Your task to perform on an android device: Search for Italian restaurants on Maps Image 0: 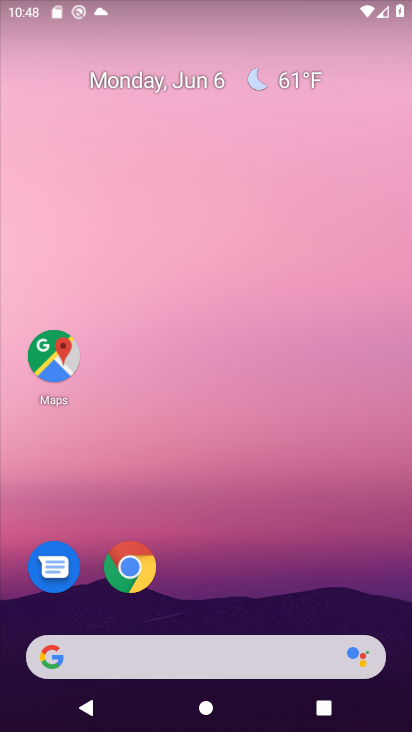
Step 0: drag from (250, 714) to (252, 85)
Your task to perform on an android device: Search for Italian restaurants on Maps Image 1: 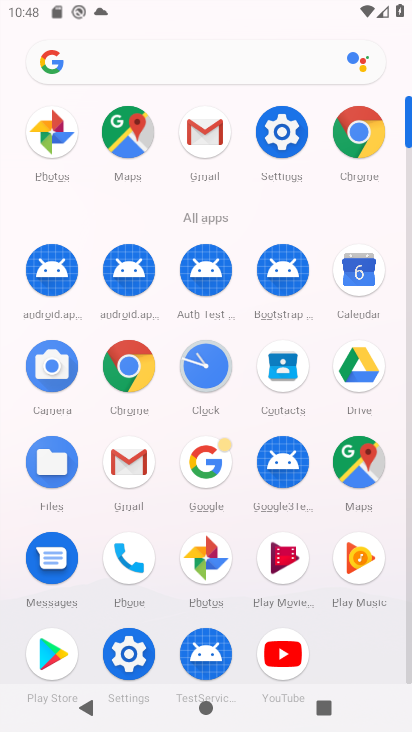
Step 1: click (357, 455)
Your task to perform on an android device: Search for Italian restaurants on Maps Image 2: 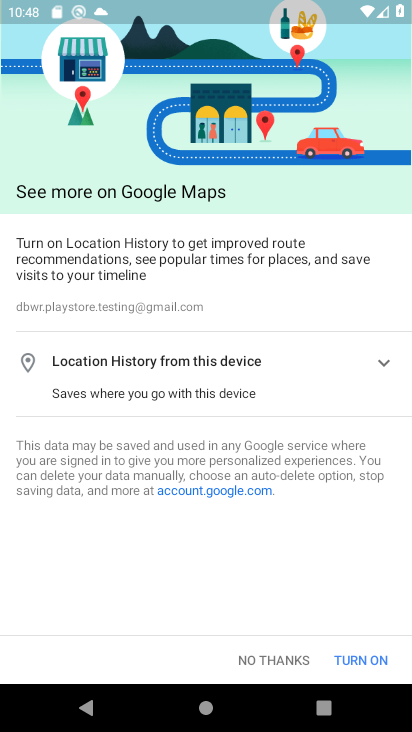
Step 2: click (286, 655)
Your task to perform on an android device: Search for Italian restaurants on Maps Image 3: 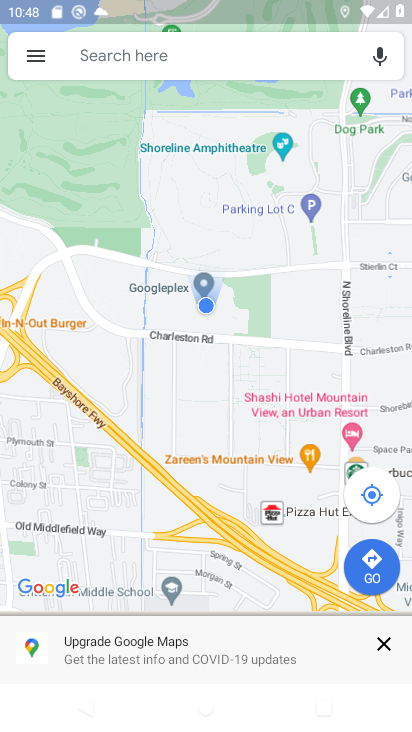
Step 3: click (201, 53)
Your task to perform on an android device: Search for Italian restaurants on Maps Image 4: 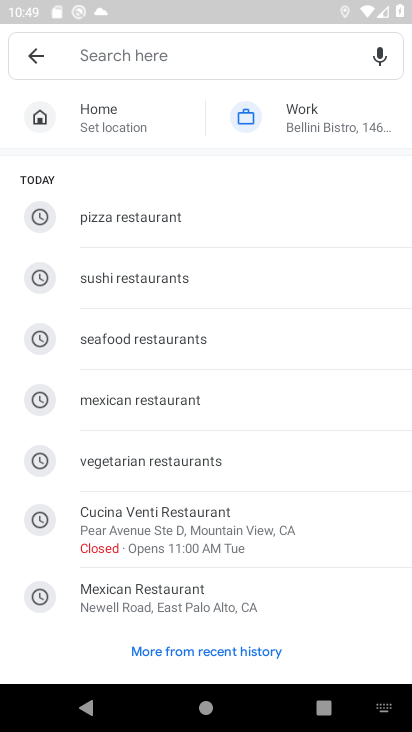
Step 4: type "italian restaurants"
Your task to perform on an android device: Search for Italian restaurants on Maps Image 5: 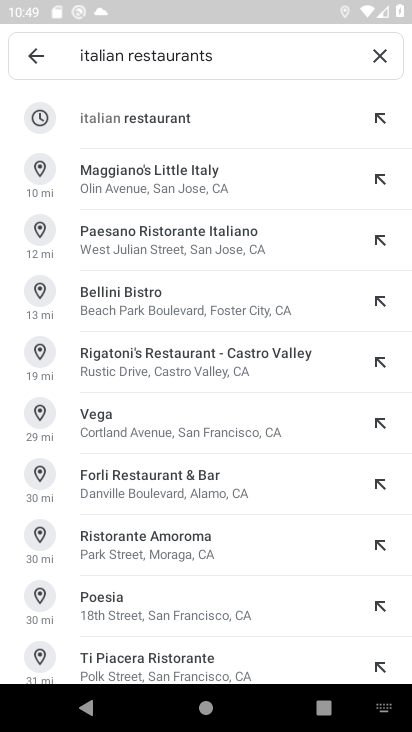
Step 5: click (117, 120)
Your task to perform on an android device: Search for Italian restaurants on Maps Image 6: 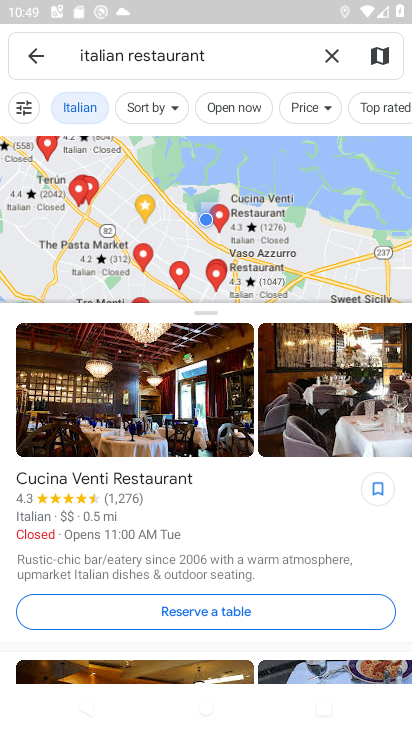
Step 6: task complete